Your task to perform on an android device: turn off notifications settings in the gmail app Image 0: 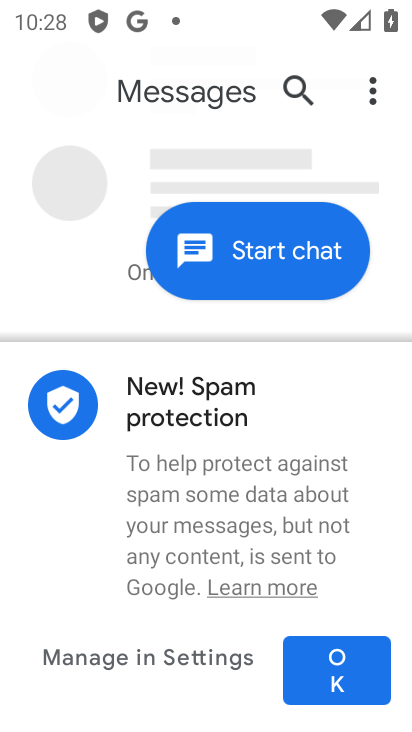
Step 0: press home button
Your task to perform on an android device: turn off notifications settings in the gmail app Image 1: 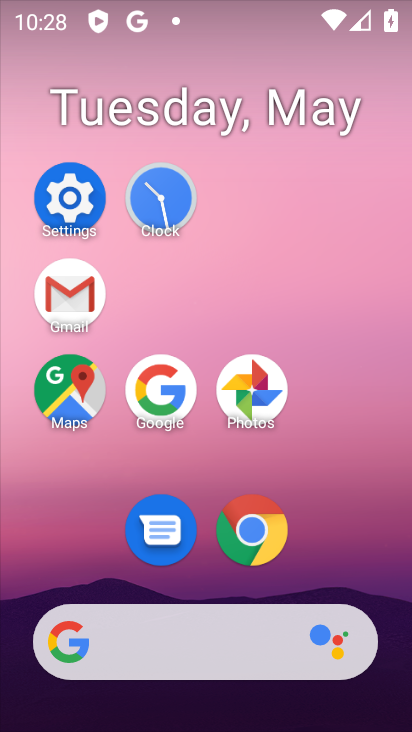
Step 1: click (56, 295)
Your task to perform on an android device: turn off notifications settings in the gmail app Image 2: 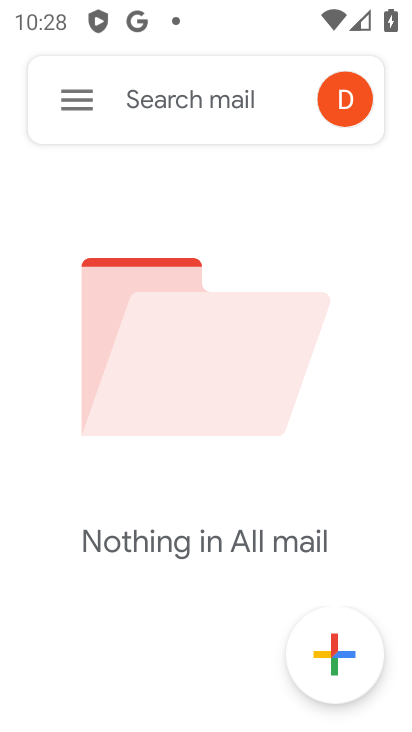
Step 2: click (66, 112)
Your task to perform on an android device: turn off notifications settings in the gmail app Image 3: 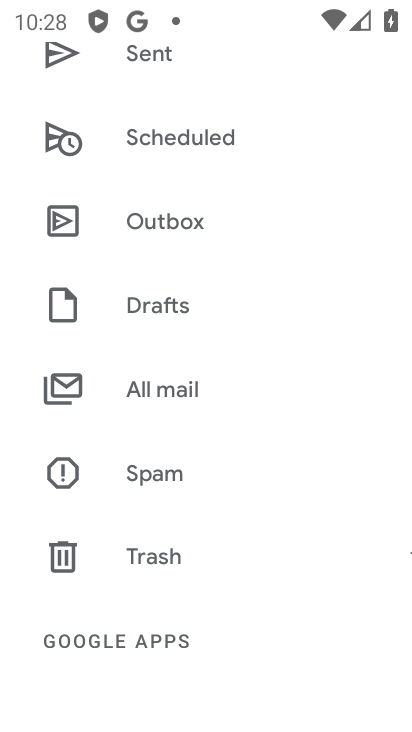
Step 3: drag from (203, 595) to (223, 226)
Your task to perform on an android device: turn off notifications settings in the gmail app Image 4: 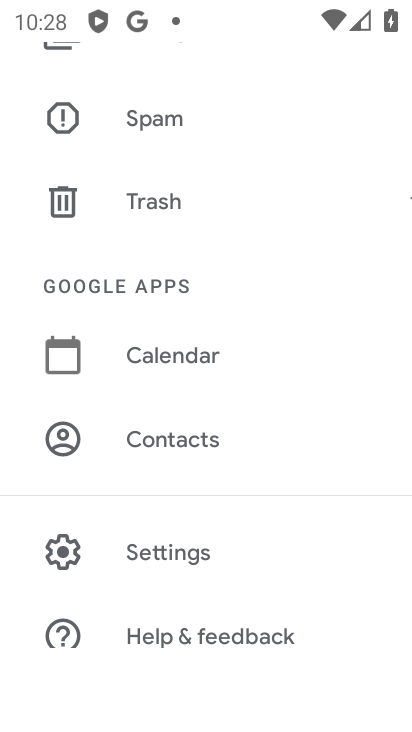
Step 4: click (197, 538)
Your task to perform on an android device: turn off notifications settings in the gmail app Image 5: 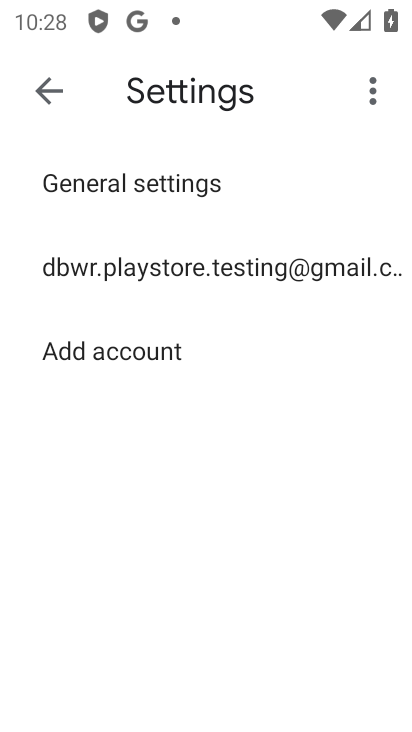
Step 5: click (189, 246)
Your task to perform on an android device: turn off notifications settings in the gmail app Image 6: 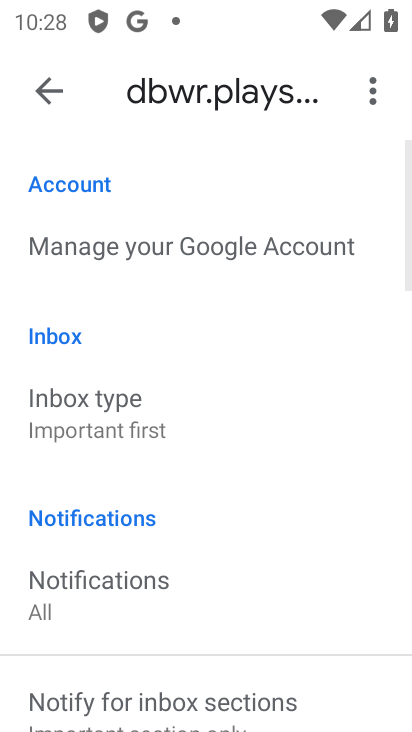
Step 6: click (130, 583)
Your task to perform on an android device: turn off notifications settings in the gmail app Image 7: 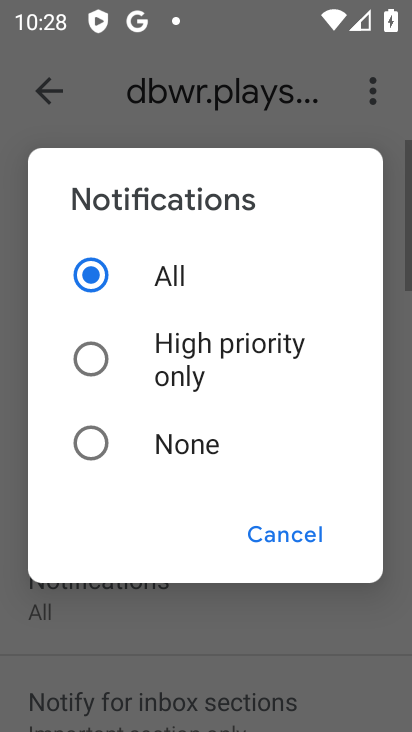
Step 7: click (88, 463)
Your task to perform on an android device: turn off notifications settings in the gmail app Image 8: 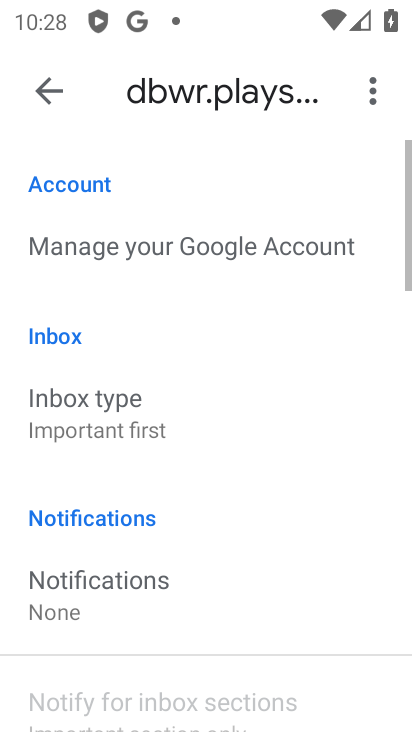
Step 8: task complete